Your task to perform on an android device: set the stopwatch Image 0: 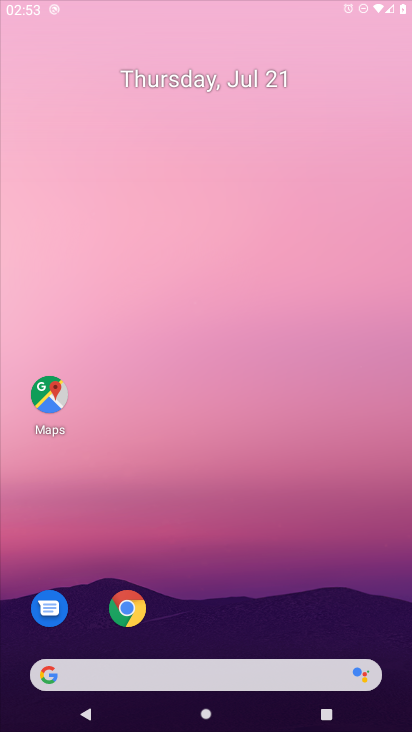
Step 0: press home button
Your task to perform on an android device: set the stopwatch Image 1: 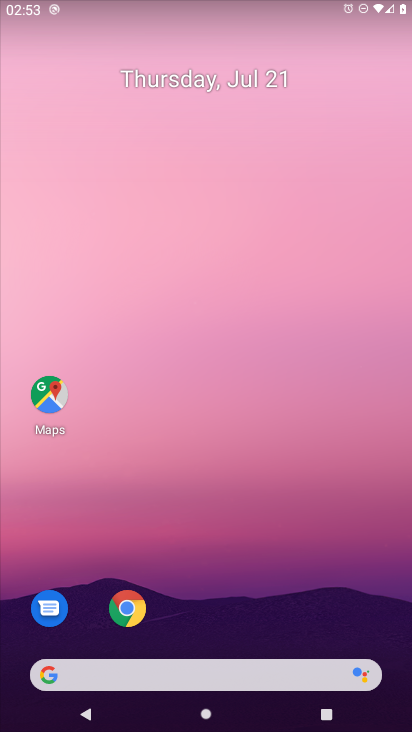
Step 1: drag from (229, 637) to (235, 115)
Your task to perform on an android device: set the stopwatch Image 2: 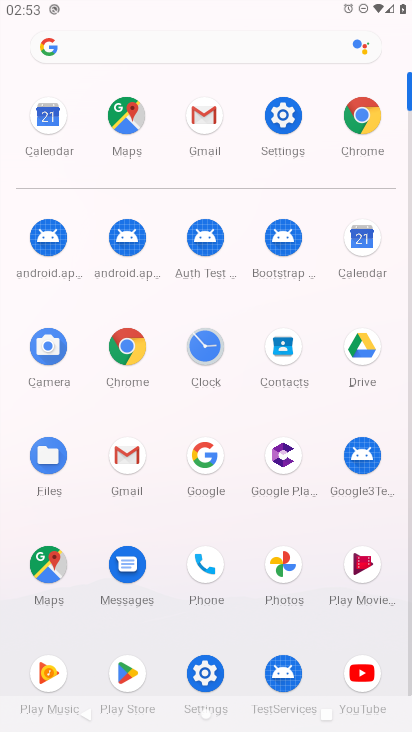
Step 2: click (195, 349)
Your task to perform on an android device: set the stopwatch Image 3: 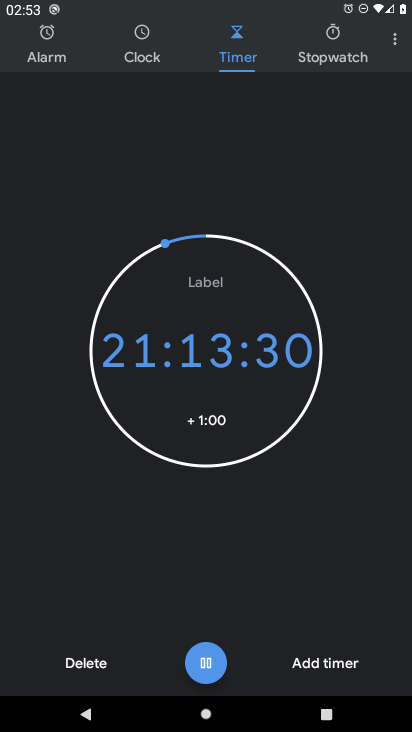
Step 3: click (330, 40)
Your task to perform on an android device: set the stopwatch Image 4: 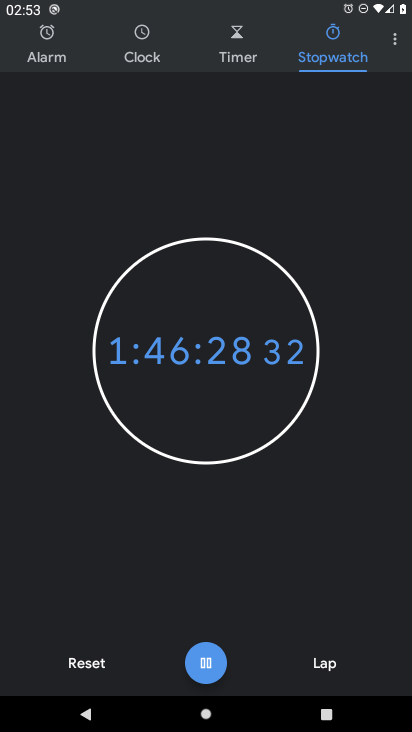
Step 4: task complete